Your task to perform on an android device: Open the web browser Image 0: 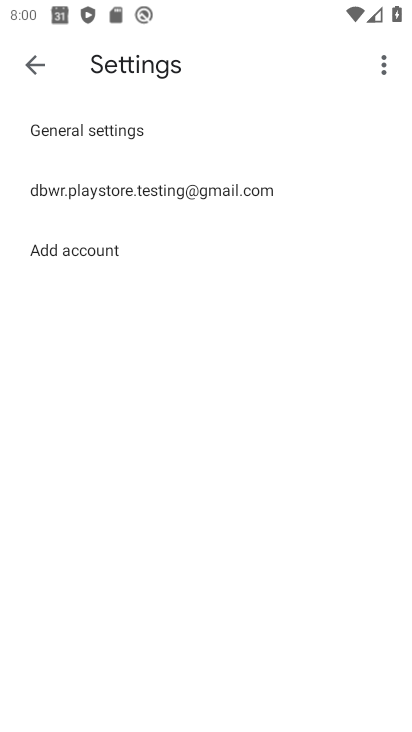
Step 0: press home button
Your task to perform on an android device: Open the web browser Image 1: 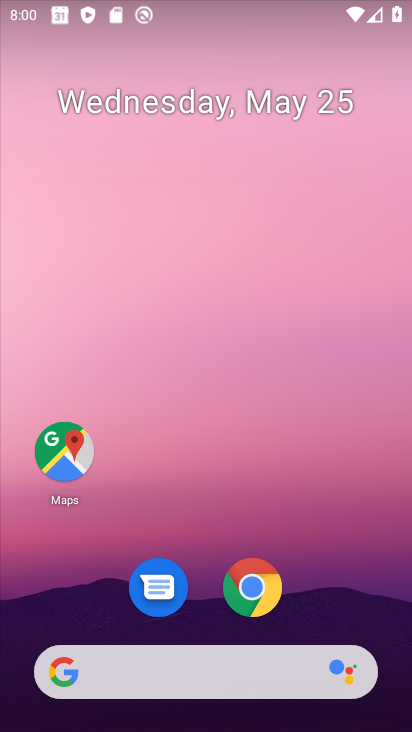
Step 1: click (257, 586)
Your task to perform on an android device: Open the web browser Image 2: 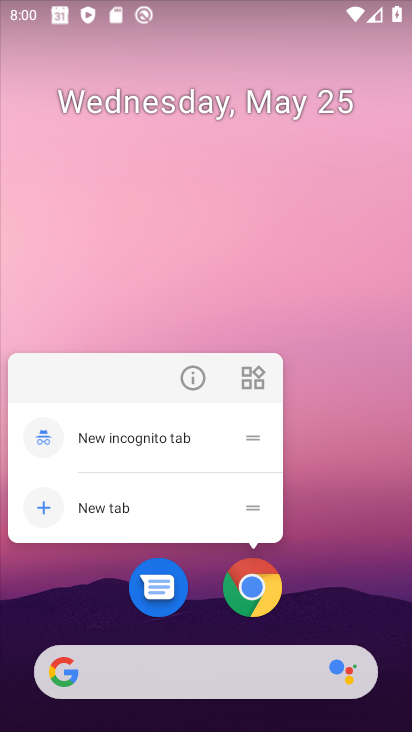
Step 2: click (298, 441)
Your task to perform on an android device: Open the web browser Image 3: 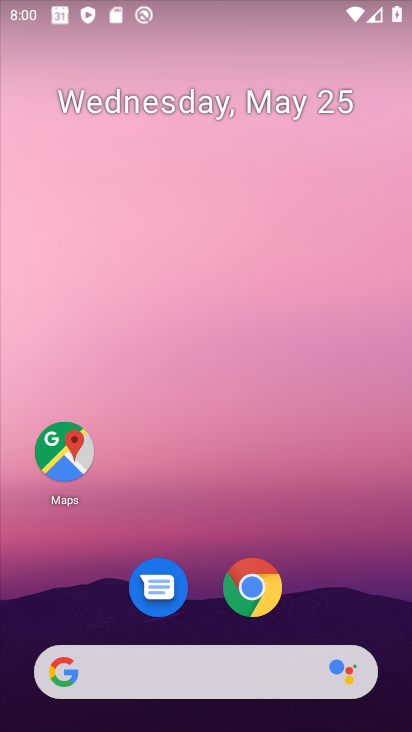
Step 3: click (245, 584)
Your task to perform on an android device: Open the web browser Image 4: 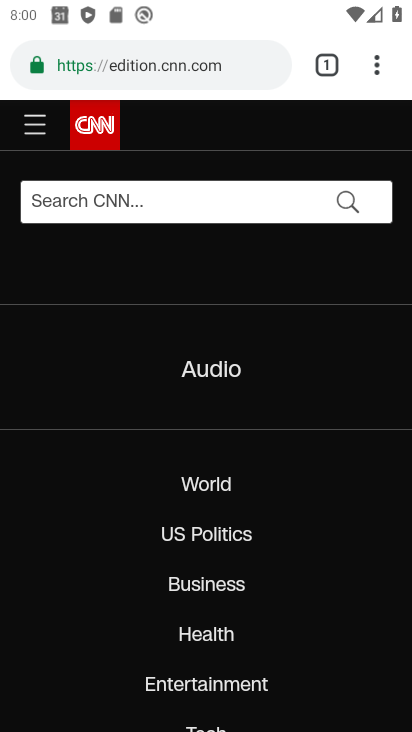
Step 4: click (223, 69)
Your task to perform on an android device: Open the web browser Image 5: 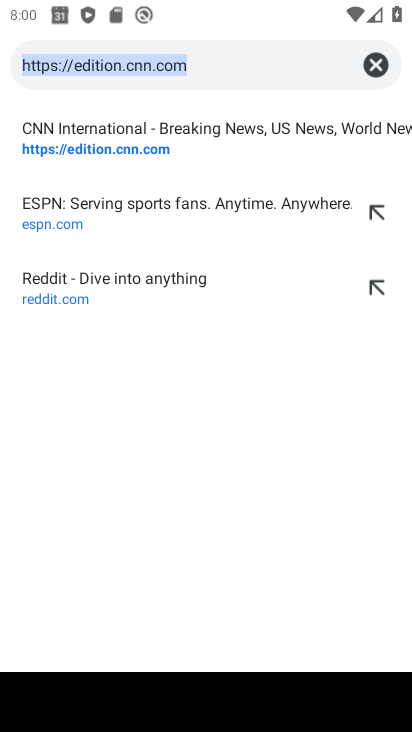
Step 5: click (377, 67)
Your task to perform on an android device: Open the web browser Image 6: 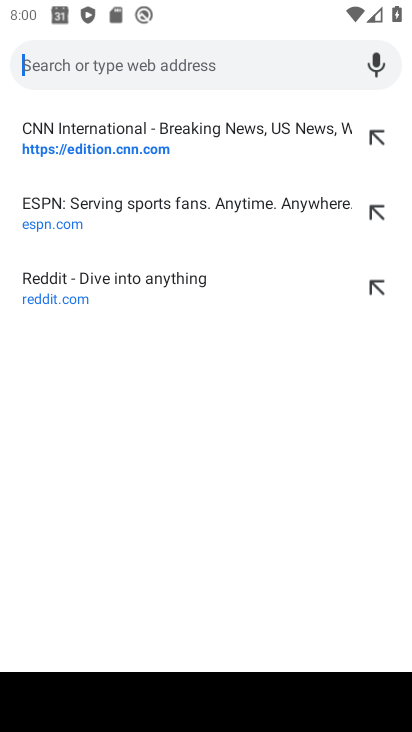
Step 6: type "web browser"
Your task to perform on an android device: Open the web browser Image 7: 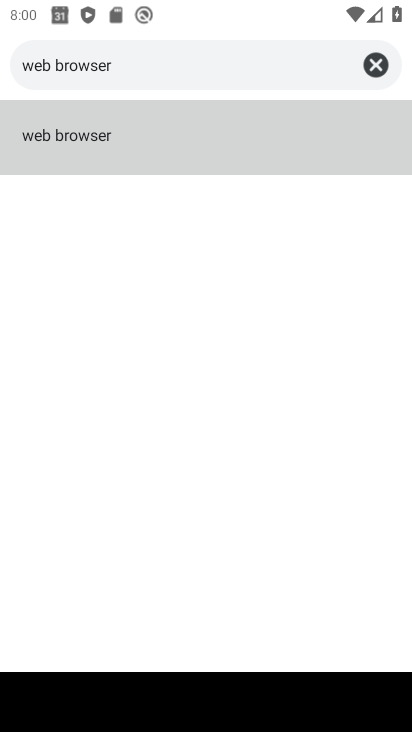
Step 7: click (41, 134)
Your task to perform on an android device: Open the web browser Image 8: 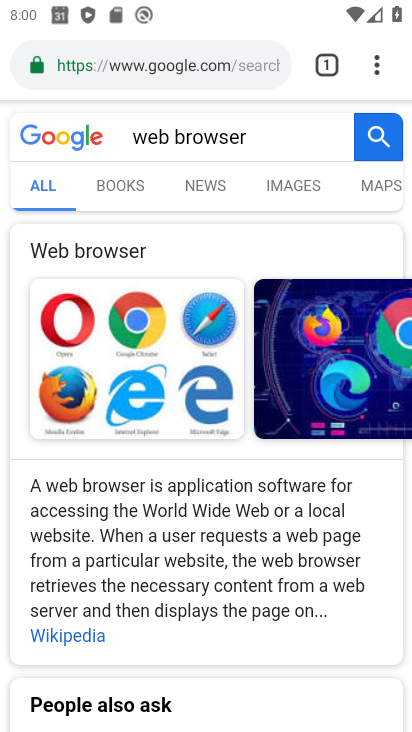
Step 8: drag from (277, 605) to (183, 623)
Your task to perform on an android device: Open the web browser Image 9: 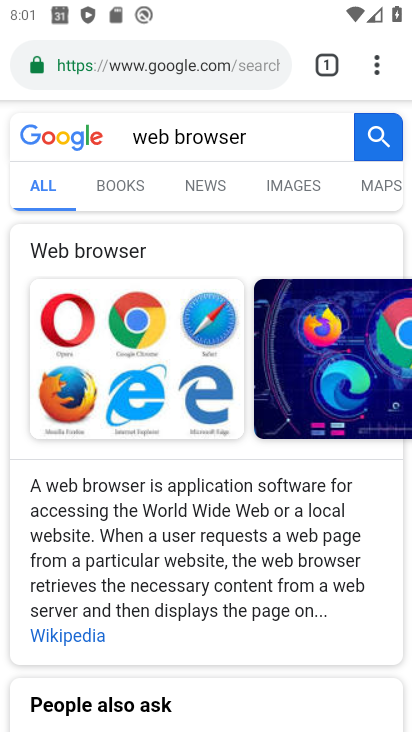
Step 9: click (110, 254)
Your task to perform on an android device: Open the web browser Image 10: 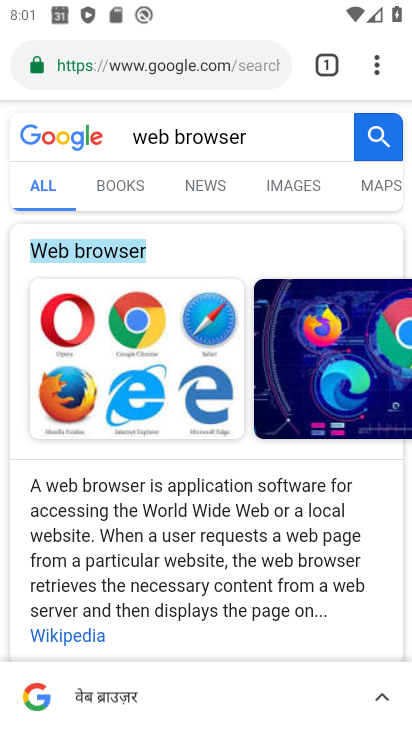
Step 10: task complete